Your task to perform on an android device: open app "Facebook Messenger" Image 0: 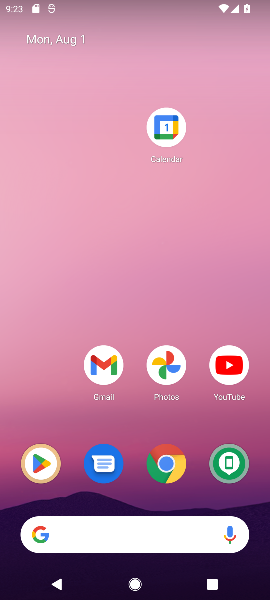
Step 0: drag from (80, 270) to (75, 26)
Your task to perform on an android device: open app "Facebook Messenger" Image 1: 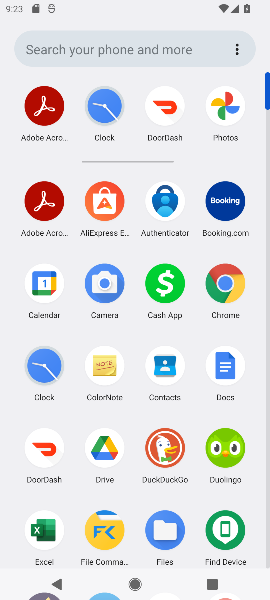
Step 1: click (177, 46)
Your task to perform on an android device: open app "Facebook Messenger" Image 2: 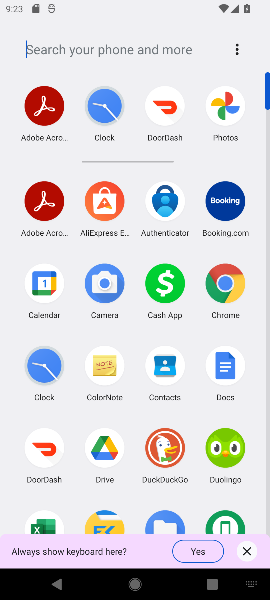
Step 2: drag from (193, 502) to (142, 150)
Your task to perform on an android device: open app "Facebook Messenger" Image 3: 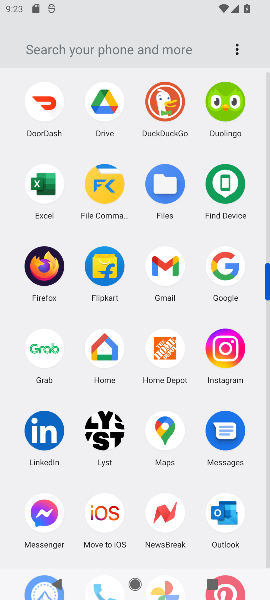
Step 3: click (42, 538)
Your task to perform on an android device: open app "Facebook Messenger" Image 4: 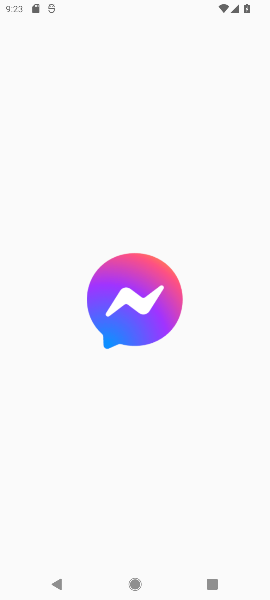
Step 4: task complete